Your task to perform on an android device: choose inbox layout in the gmail app Image 0: 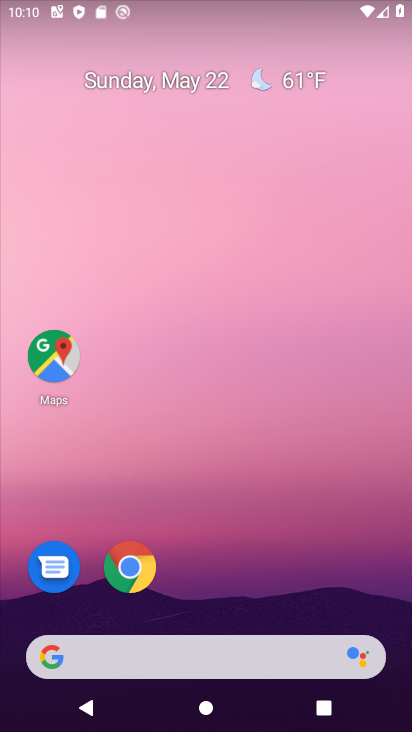
Step 0: drag from (213, 632) to (166, 34)
Your task to perform on an android device: choose inbox layout in the gmail app Image 1: 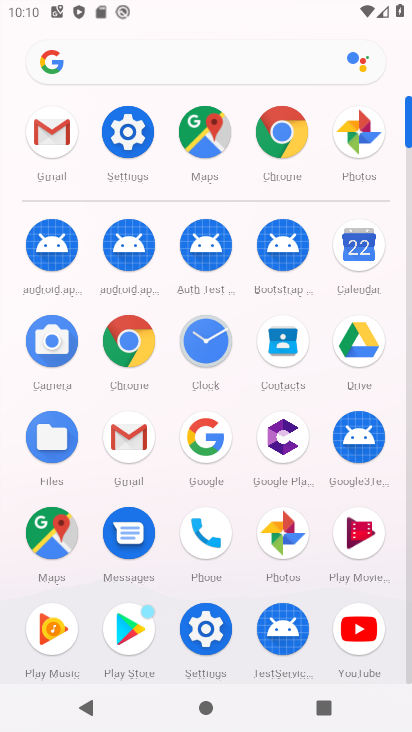
Step 1: click (126, 425)
Your task to perform on an android device: choose inbox layout in the gmail app Image 2: 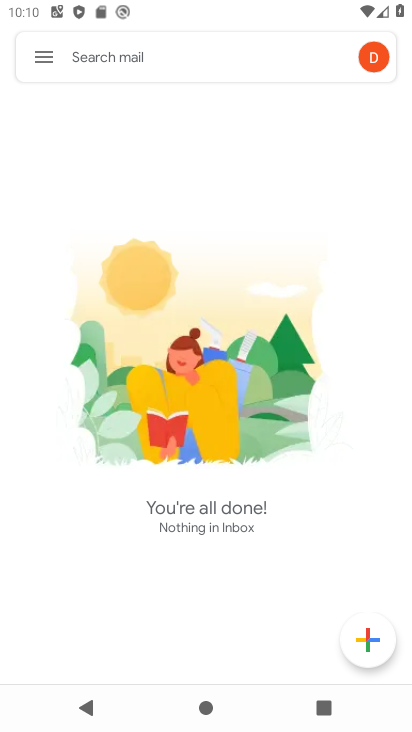
Step 2: task complete